Your task to perform on an android device: Open Google Chrome Image 0: 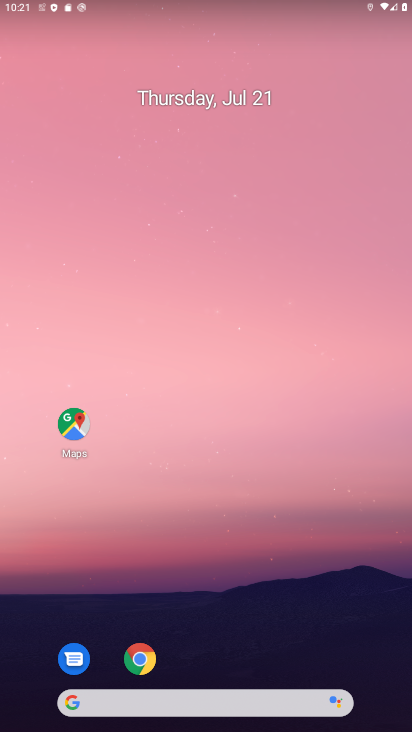
Step 0: click (147, 649)
Your task to perform on an android device: Open Google Chrome Image 1: 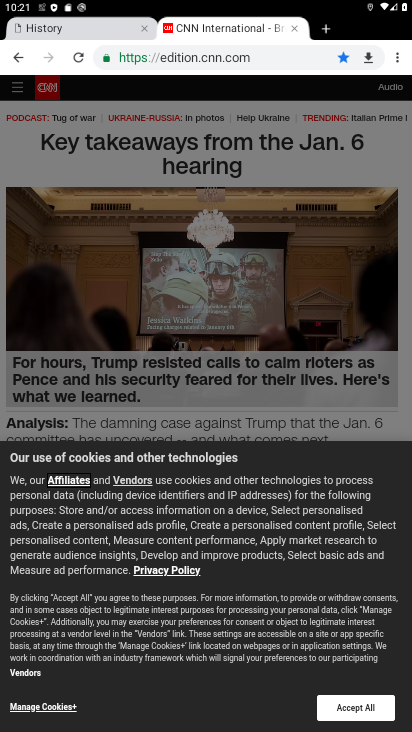
Step 1: task complete